Your task to perform on an android device: toggle airplane mode Image 0: 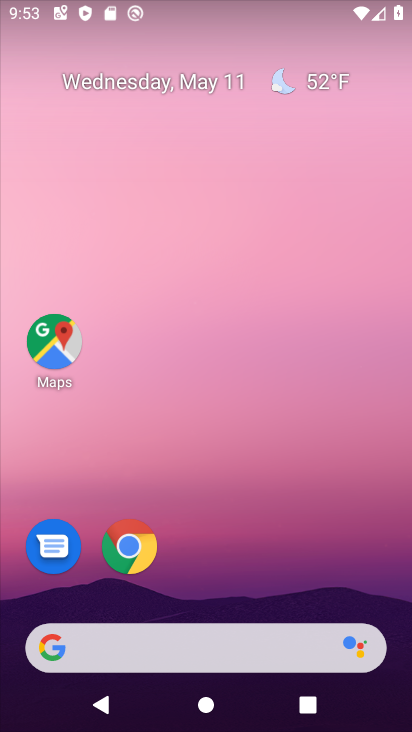
Step 0: drag from (197, 624) to (334, 88)
Your task to perform on an android device: toggle airplane mode Image 1: 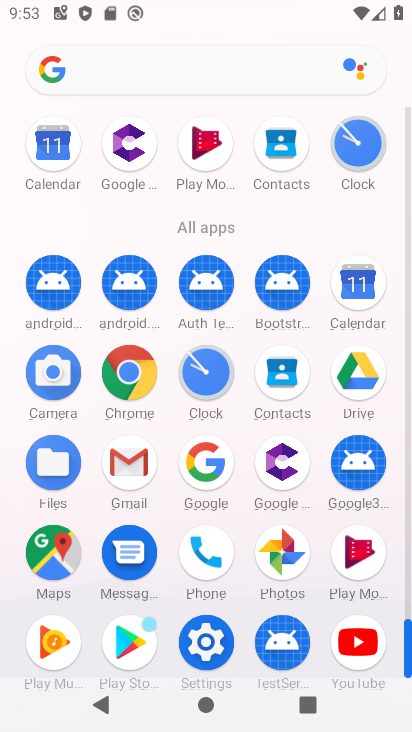
Step 1: click (198, 646)
Your task to perform on an android device: toggle airplane mode Image 2: 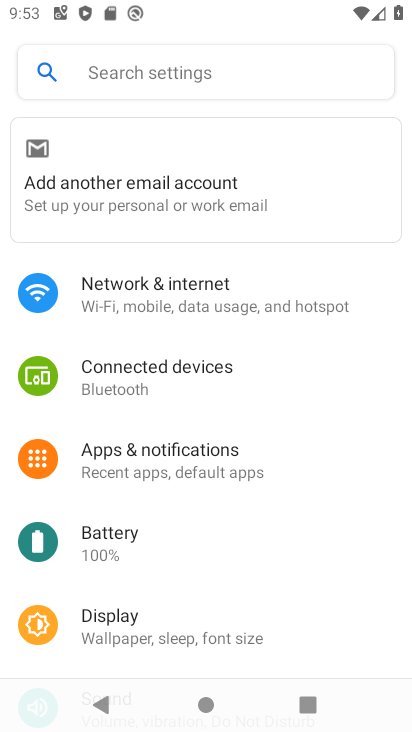
Step 2: click (187, 305)
Your task to perform on an android device: toggle airplane mode Image 3: 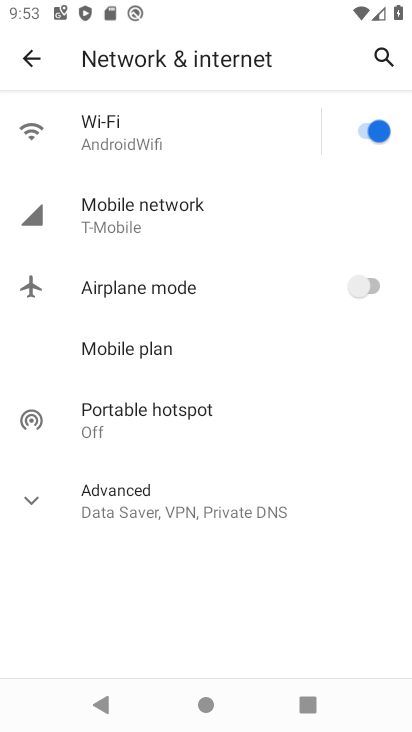
Step 3: click (381, 278)
Your task to perform on an android device: toggle airplane mode Image 4: 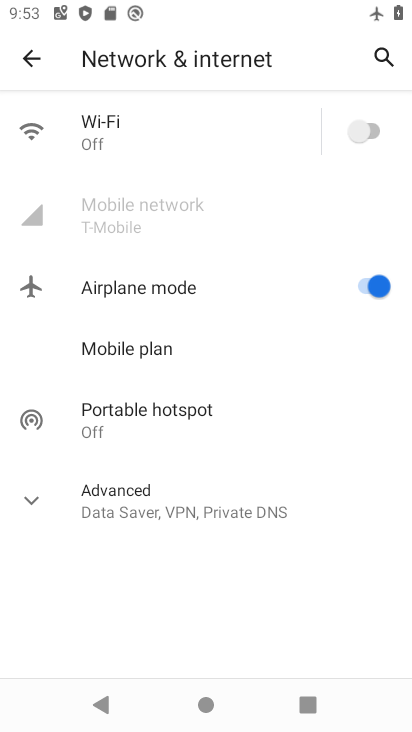
Step 4: task complete